Your task to perform on an android device: delete location history Image 0: 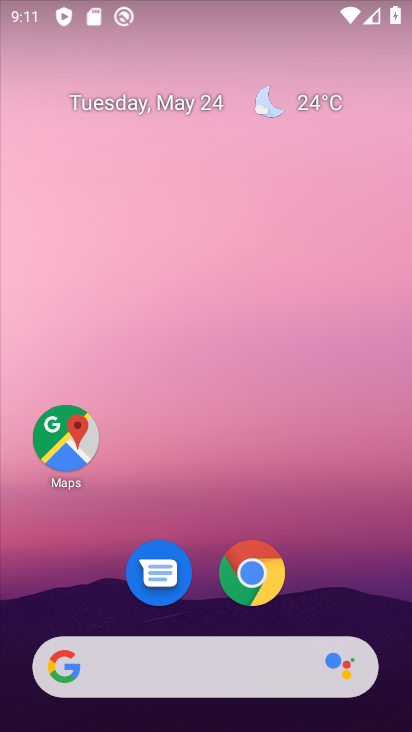
Step 0: click (67, 439)
Your task to perform on an android device: delete location history Image 1: 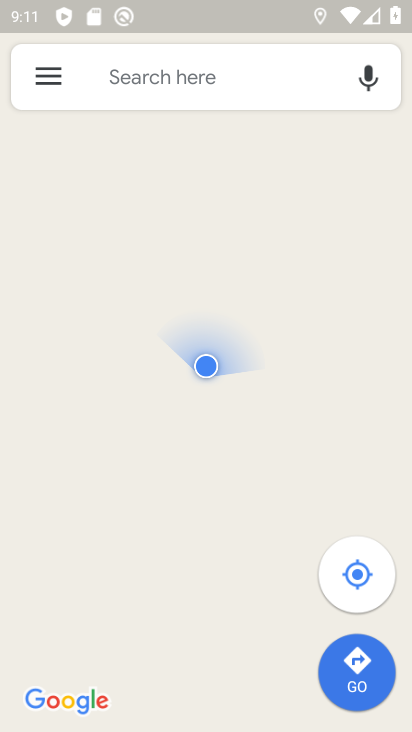
Step 1: click (41, 73)
Your task to perform on an android device: delete location history Image 2: 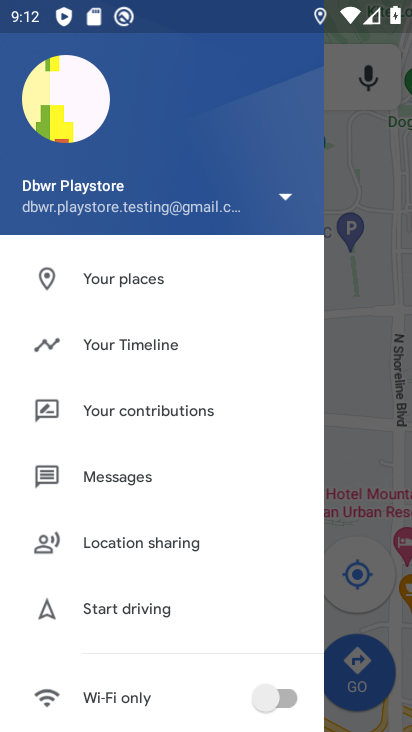
Step 2: drag from (235, 652) to (280, 139)
Your task to perform on an android device: delete location history Image 3: 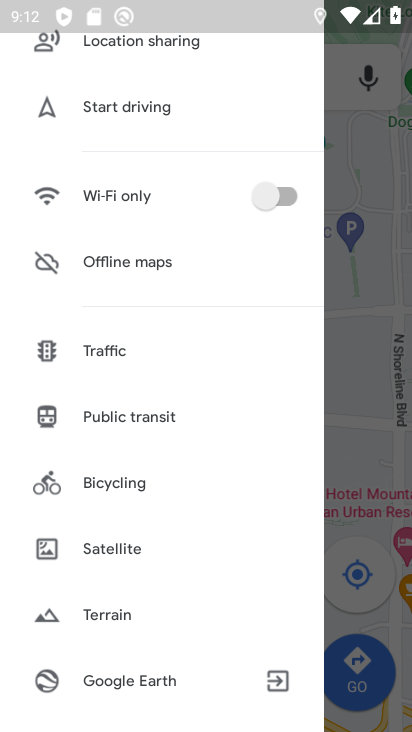
Step 3: drag from (185, 621) to (187, 240)
Your task to perform on an android device: delete location history Image 4: 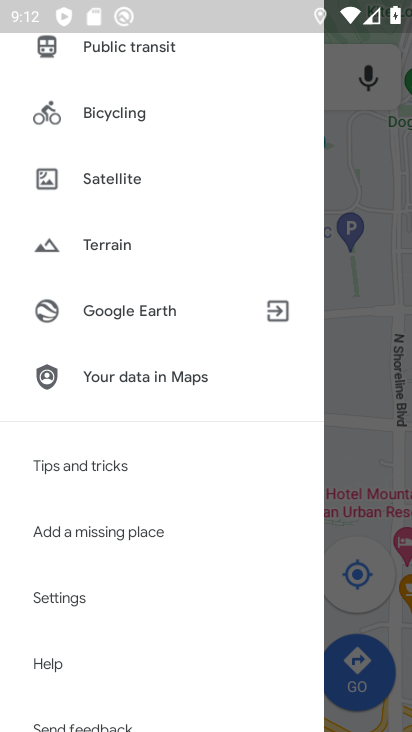
Step 4: click (48, 600)
Your task to perform on an android device: delete location history Image 5: 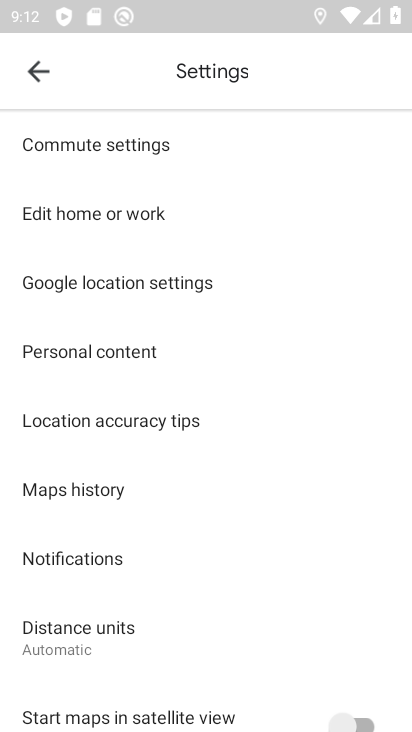
Step 5: click (75, 349)
Your task to perform on an android device: delete location history Image 6: 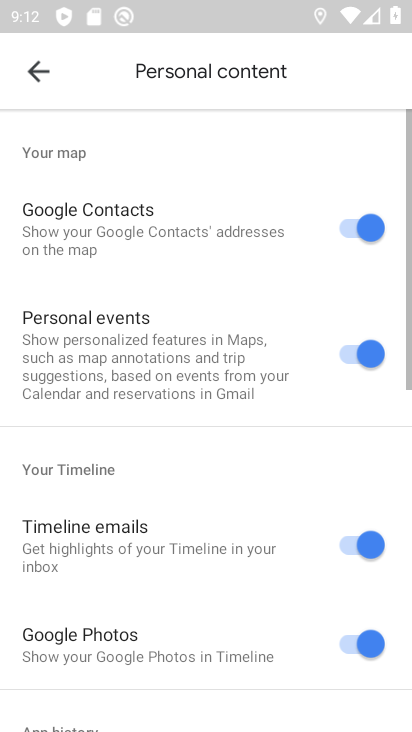
Step 6: drag from (229, 653) to (302, 199)
Your task to perform on an android device: delete location history Image 7: 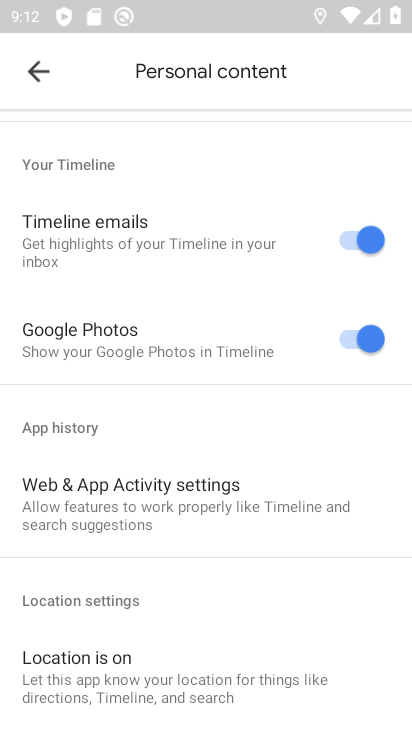
Step 7: drag from (264, 624) to (281, 294)
Your task to perform on an android device: delete location history Image 8: 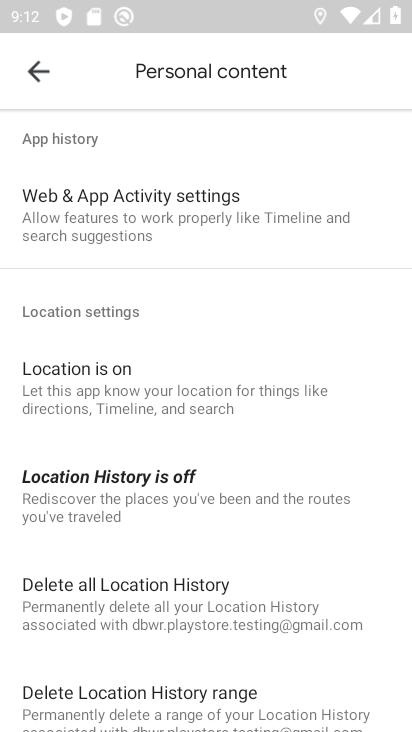
Step 8: click (44, 594)
Your task to perform on an android device: delete location history Image 9: 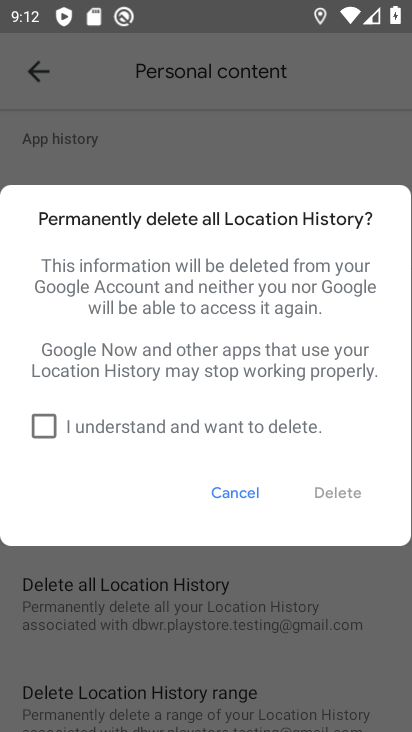
Step 9: click (44, 417)
Your task to perform on an android device: delete location history Image 10: 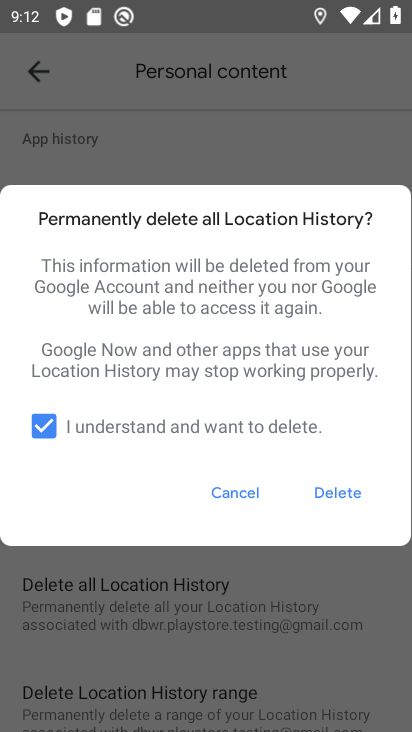
Step 10: click (346, 492)
Your task to perform on an android device: delete location history Image 11: 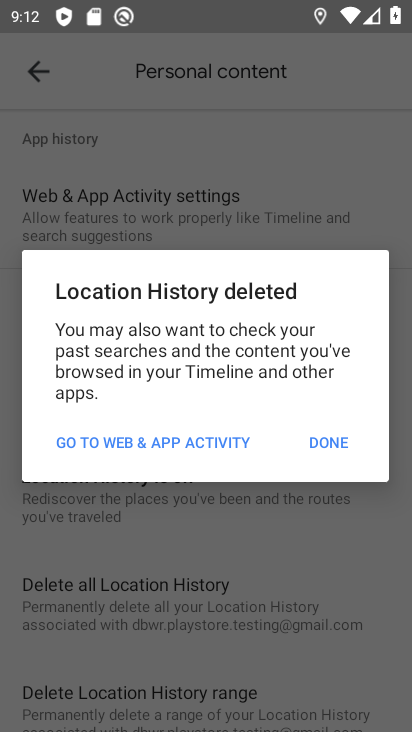
Step 11: click (335, 443)
Your task to perform on an android device: delete location history Image 12: 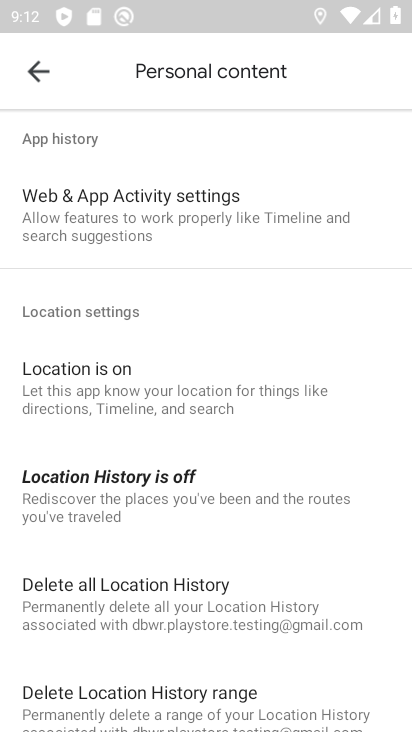
Step 12: task complete